Your task to perform on an android device: Open calendar and show me the fourth week of next month Image 0: 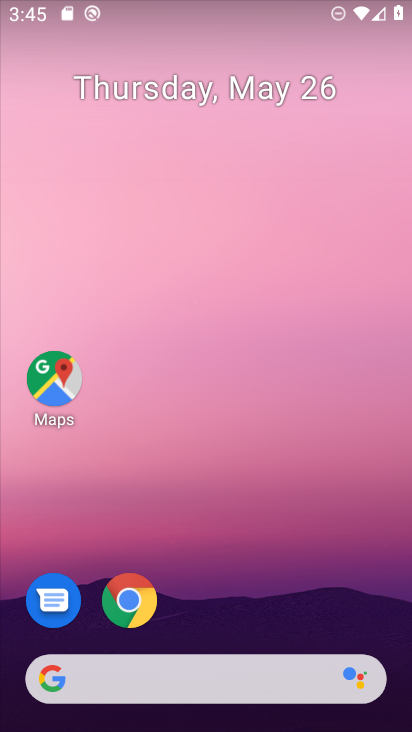
Step 0: drag from (252, 531) to (192, 44)
Your task to perform on an android device: Open calendar and show me the fourth week of next month Image 1: 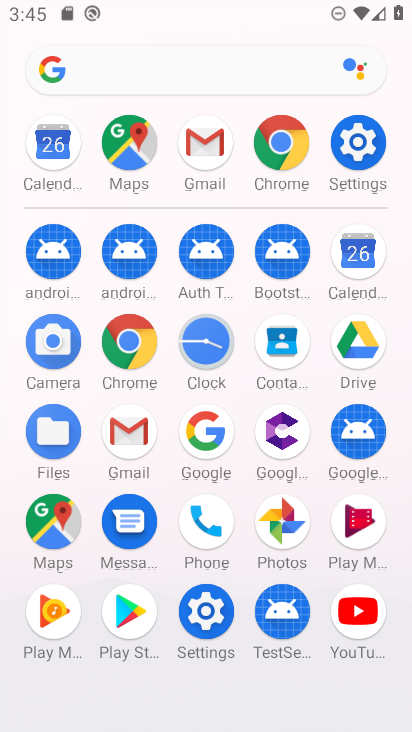
Step 1: drag from (5, 531) to (7, 219)
Your task to perform on an android device: Open calendar and show me the fourth week of next month Image 2: 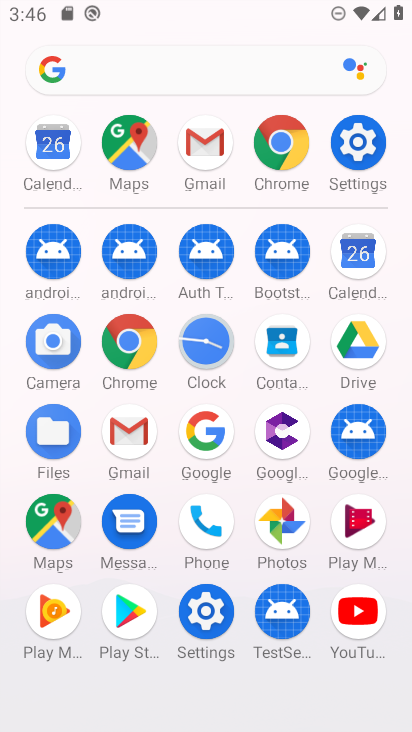
Step 2: drag from (4, 584) to (12, 313)
Your task to perform on an android device: Open calendar and show me the fourth week of next month Image 3: 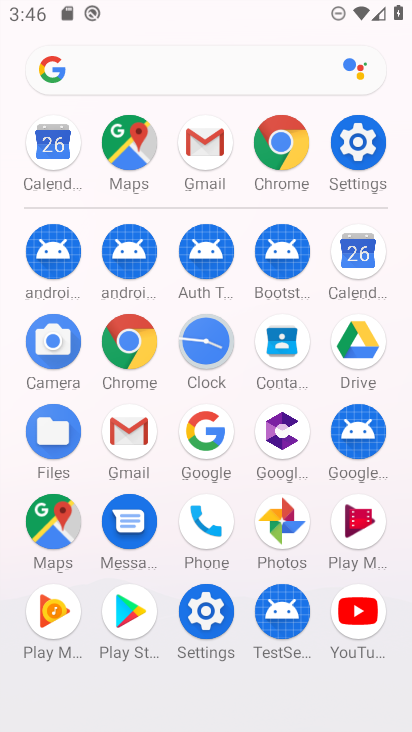
Step 3: click (354, 246)
Your task to perform on an android device: Open calendar and show me the fourth week of next month Image 4: 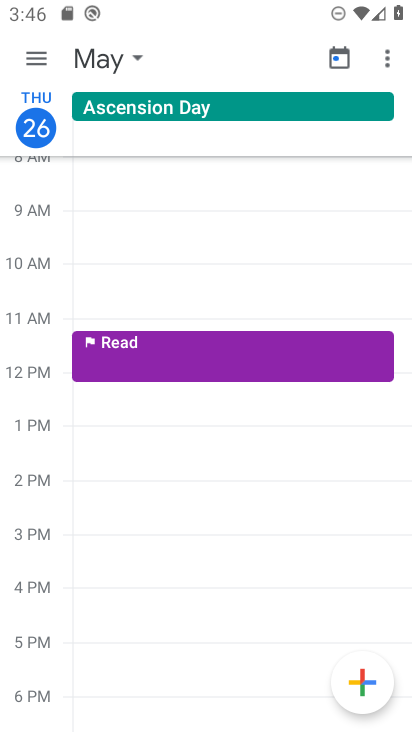
Step 4: click (117, 60)
Your task to perform on an android device: Open calendar and show me the fourth week of next month Image 5: 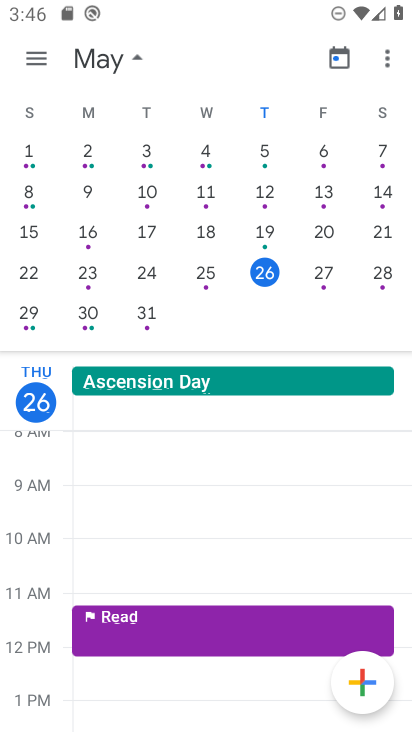
Step 5: drag from (360, 190) to (18, 183)
Your task to perform on an android device: Open calendar and show me the fourth week of next month Image 6: 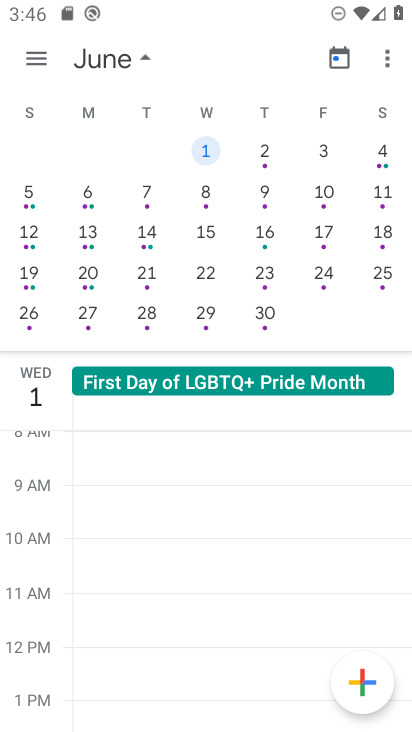
Step 6: click (33, 268)
Your task to perform on an android device: Open calendar and show me the fourth week of next month Image 7: 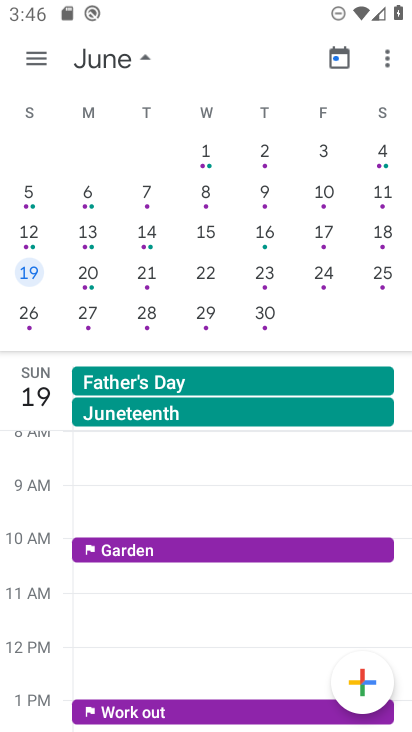
Step 7: click (35, 50)
Your task to perform on an android device: Open calendar and show me the fourth week of next month Image 8: 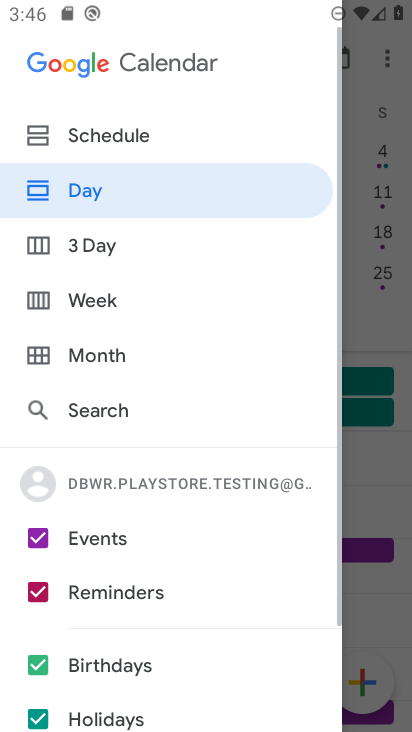
Step 8: click (101, 304)
Your task to perform on an android device: Open calendar and show me the fourth week of next month Image 9: 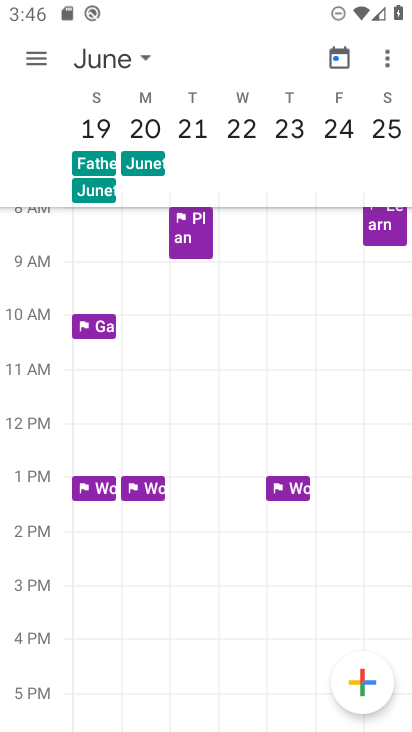
Step 9: task complete